Your task to perform on an android device: Show me popular videos on Youtube Image 0: 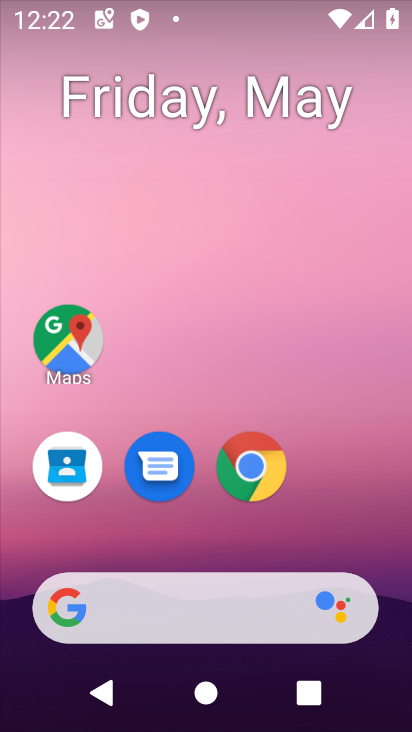
Step 0: drag from (293, 529) to (247, 5)
Your task to perform on an android device: Show me popular videos on Youtube Image 1: 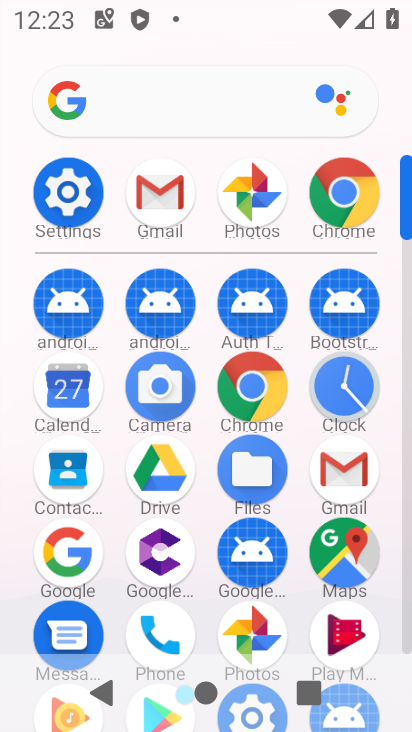
Step 1: drag from (271, 580) to (259, 56)
Your task to perform on an android device: Show me popular videos on Youtube Image 2: 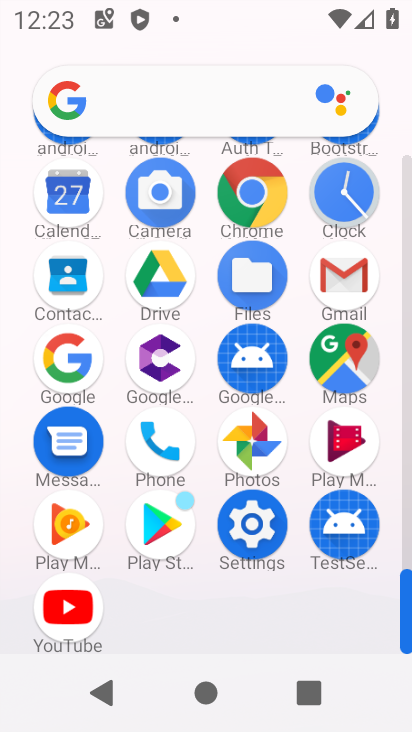
Step 2: click (68, 617)
Your task to perform on an android device: Show me popular videos on Youtube Image 3: 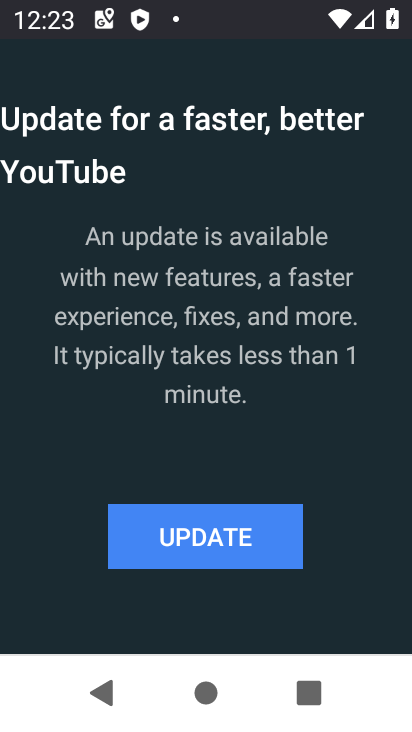
Step 3: click (195, 535)
Your task to perform on an android device: Show me popular videos on Youtube Image 4: 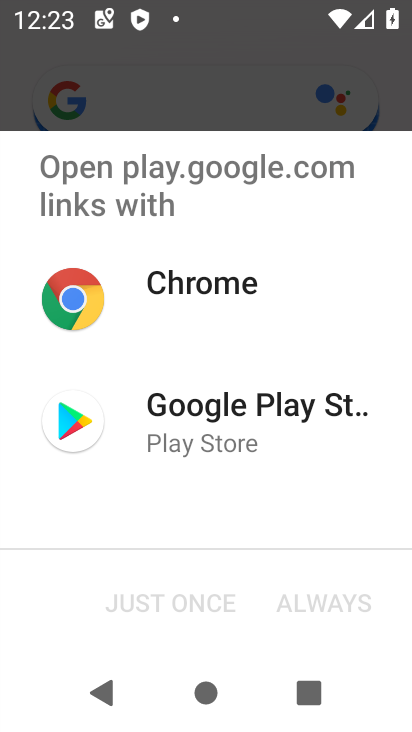
Step 4: click (224, 439)
Your task to perform on an android device: Show me popular videos on Youtube Image 5: 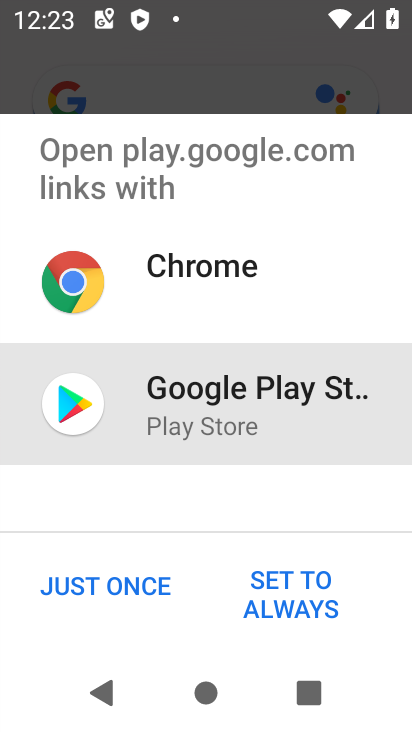
Step 5: click (301, 600)
Your task to perform on an android device: Show me popular videos on Youtube Image 6: 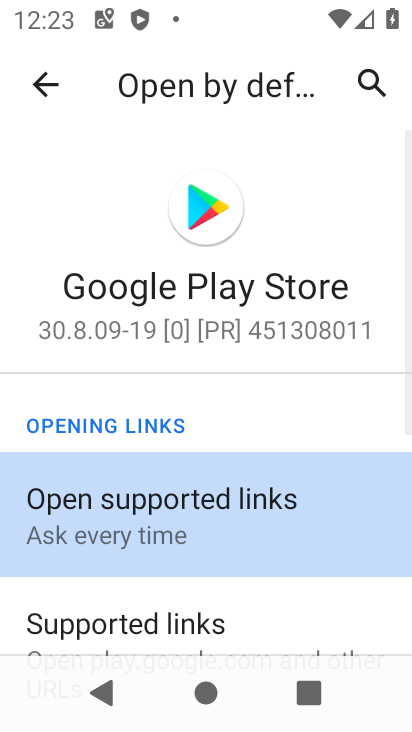
Step 6: click (143, 544)
Your task to perform on an android device: Show me popular videos on Youtube Image 7: 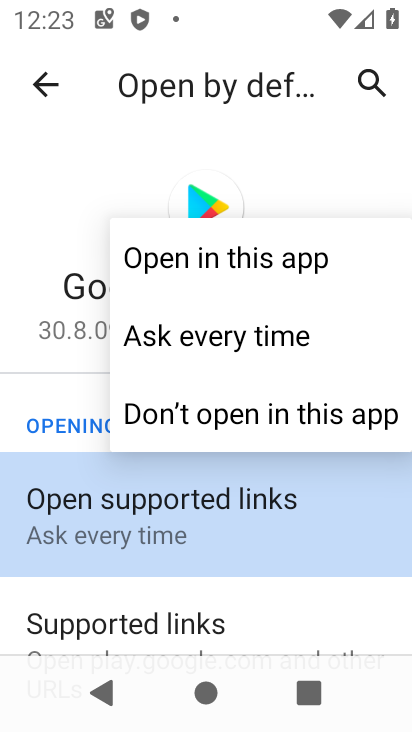
Step 7: click (196, 254)
Your task to perform on an android device: Show me popular videos on Youtube Image 8: 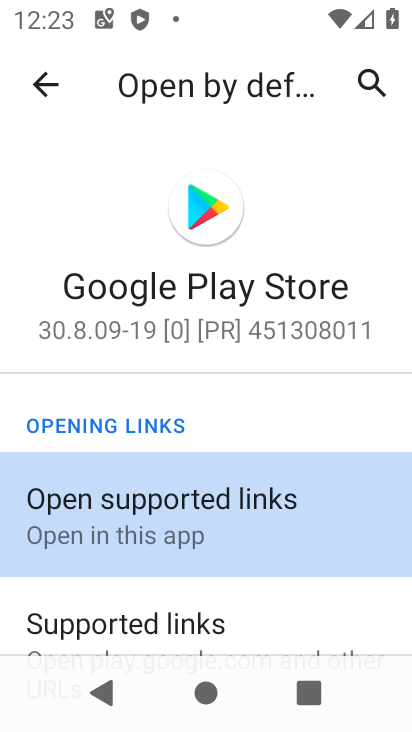
Step 8: click (39, 87)
Your task to perform on an android device: Show me popular videos on Youtube Image 9: 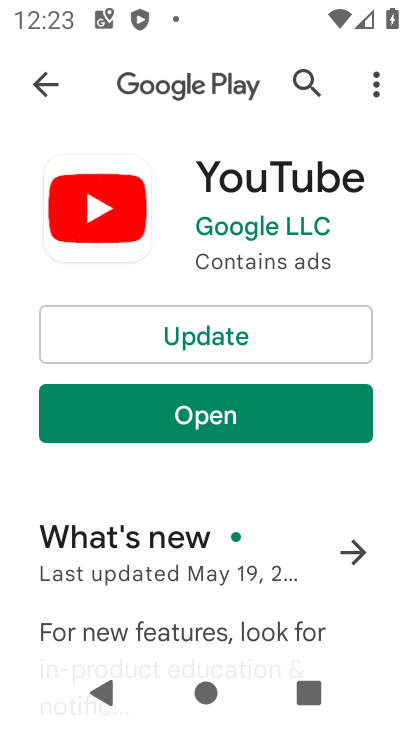
Step 9: click (185, 343)
Your task to perform on an android device: Show me popular videos on Youtube Image 10: 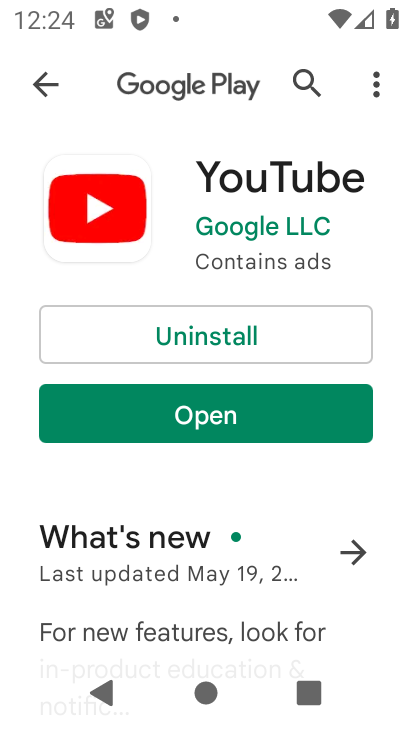
Step 10: click (231, 414)
Your task to perform on an android device: Show me popular videos on Youtube Image 11: 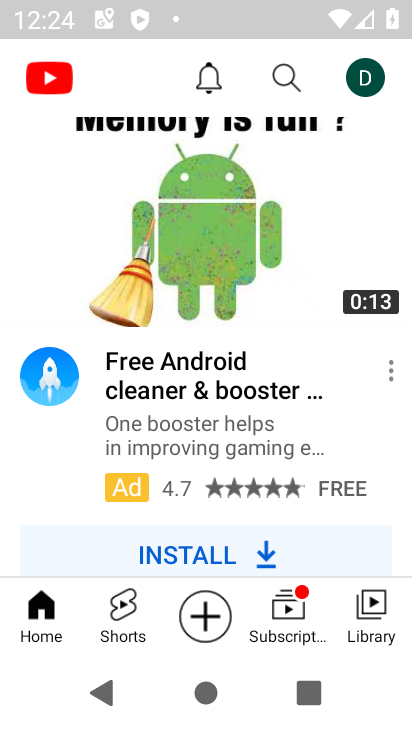
Step 11: task complete